Your task to perform on an android device: check out phone information Image 0: 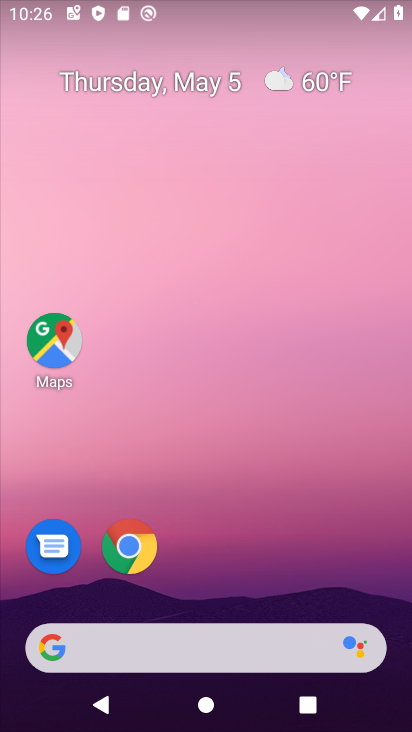
Step 0: drag from (245, 604) to (296, 193)
Your task to perform on an android device: check out phone information Image 1: 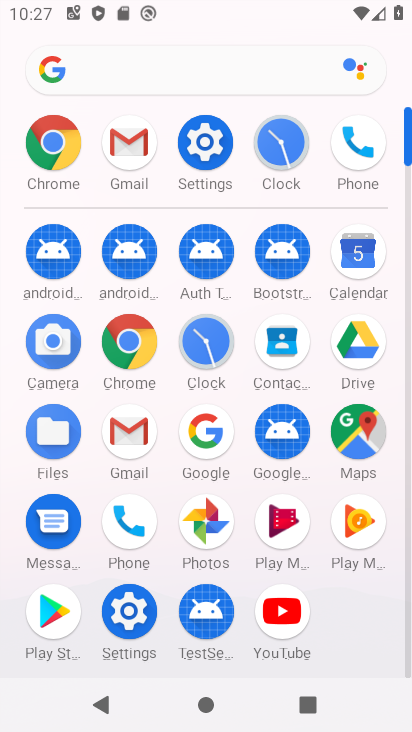
Step 1: click (197, 143)
Your task to perform on an android device: check out phone information Image 2: 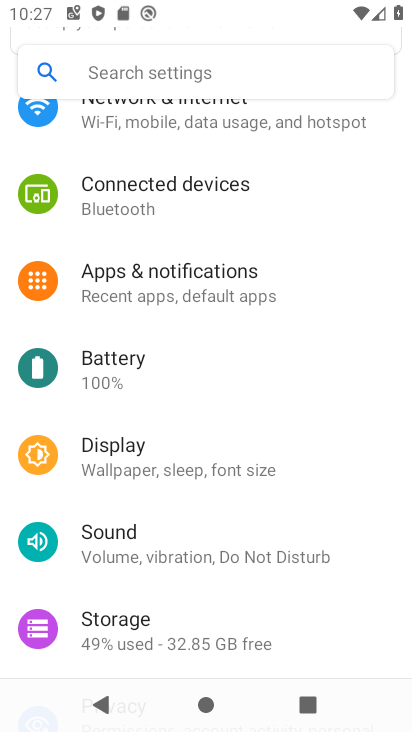
Step 2: drag from (239, 537) to (235, 377)
Your task to perform on an android device: check out phone information Image 3: 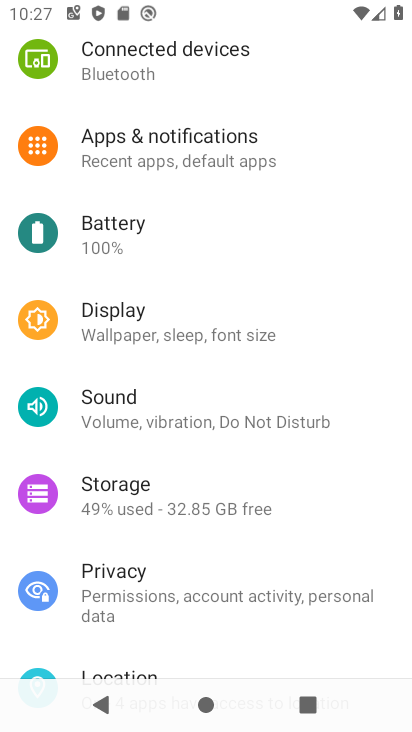
Step 3: drag from (251, 551) to (247, 429)
Your task to perform on an android device: check out phone information Image 4: 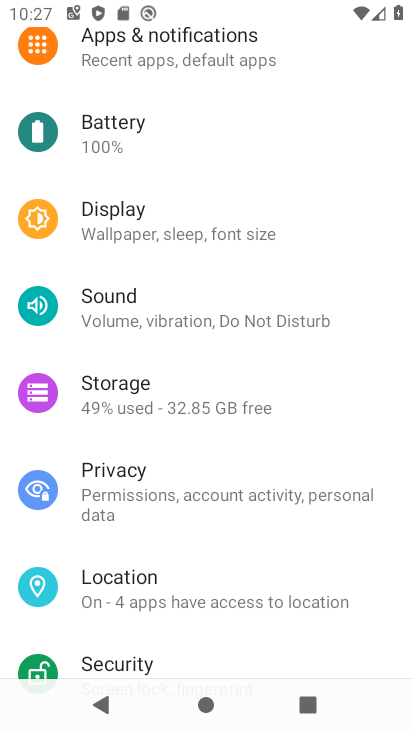
Step 4: drag from (256, 578) to (242, 464)
Your task to perform on an android device: check out phone information Image 5: 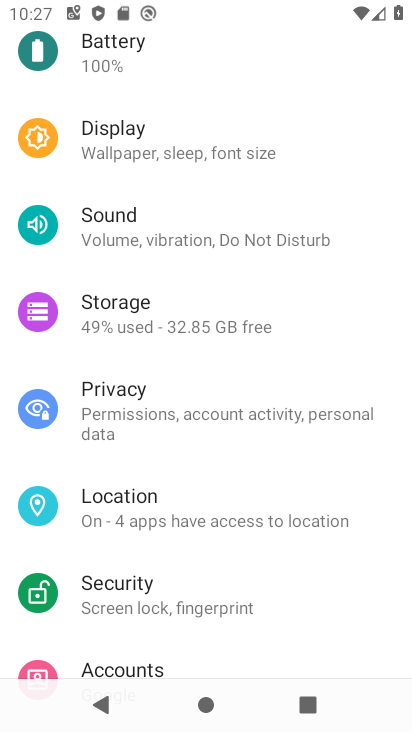
Step 5: drag from (267, 614) to (261, 513)
Your task to perform on an android device: check out phone information Image 6: 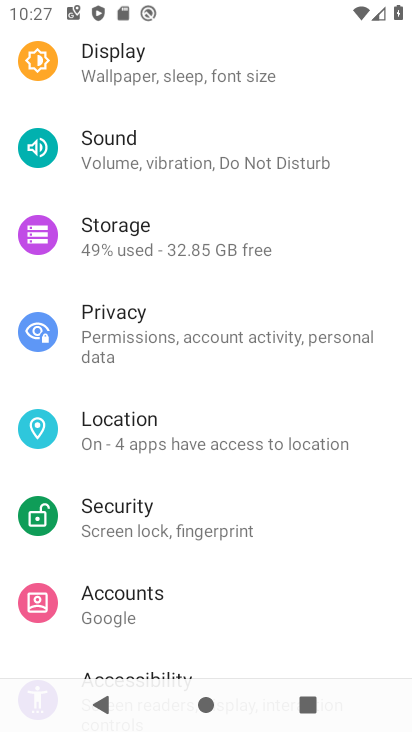
Step 6: drag from (280, 610) to (253, 497)
Your task to perform on an android device: check out phone information Image 7: 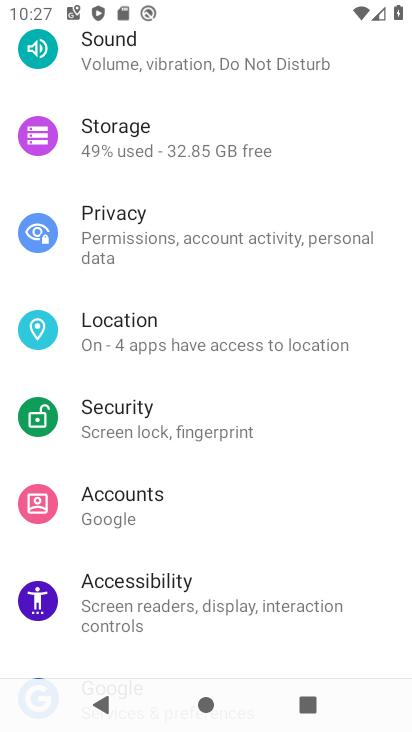
Step 7: drag from (248, 594) to (244, 492)
Your task to perform on an android device: check out phone information Image 8: 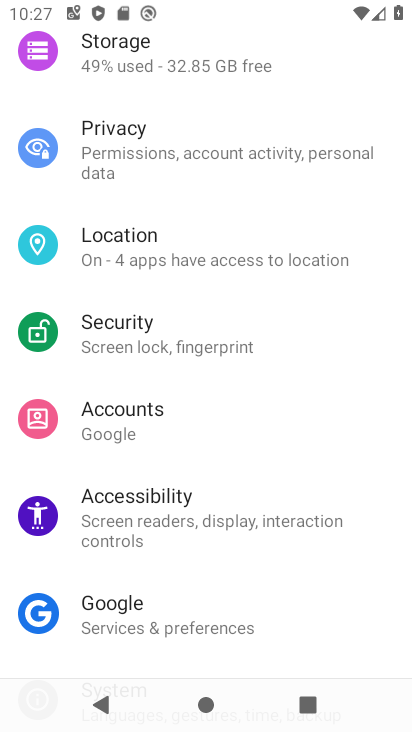
Step 8: drag from (263, 589) to (260, 458)
Your task to perform on an android device: check out phone information Image 9: 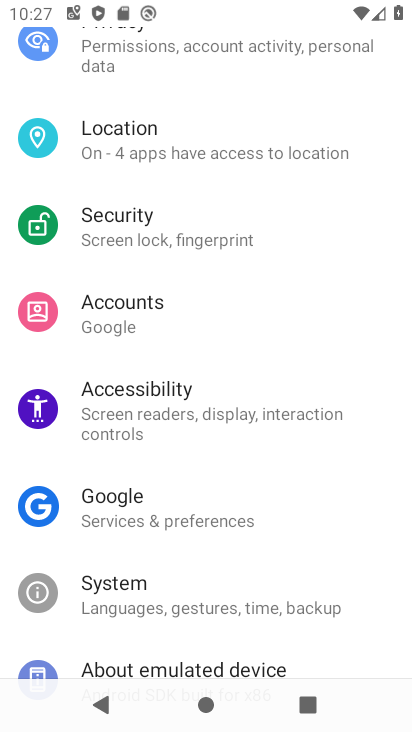
Step 9: drag from (257, 612) to (243, 434)
Your task to perform on an android device: check out phone information Image 10: 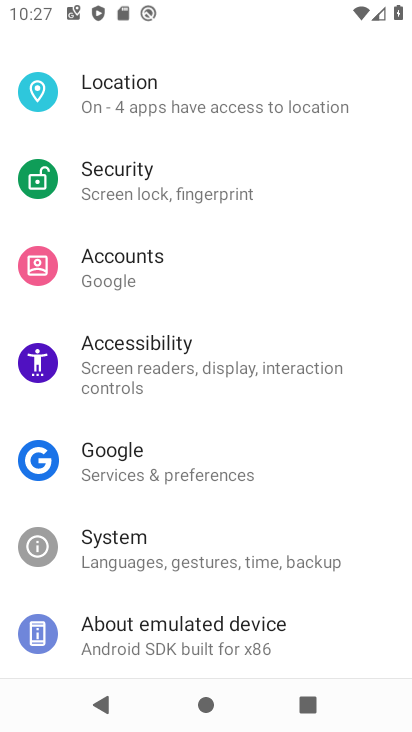
Step 10: click (210, 635)
Your task to perform on an android device: check out phone information Image 11: 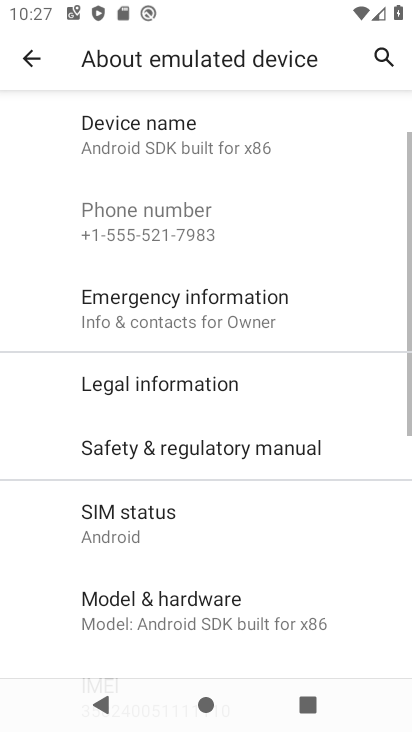
Step 11: task complete